Your task to perform on an android device: Open Google Maps and go to "Timeline" Image 0: 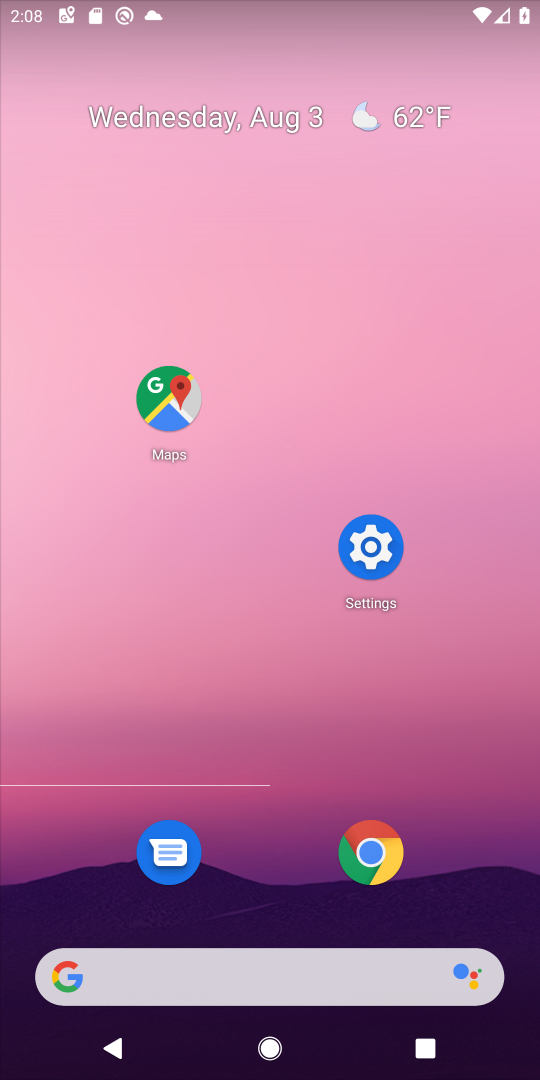
Step 0: press home button
Your task to perform on an android device: Open Google Maps and go to "Timeline" Image 1: 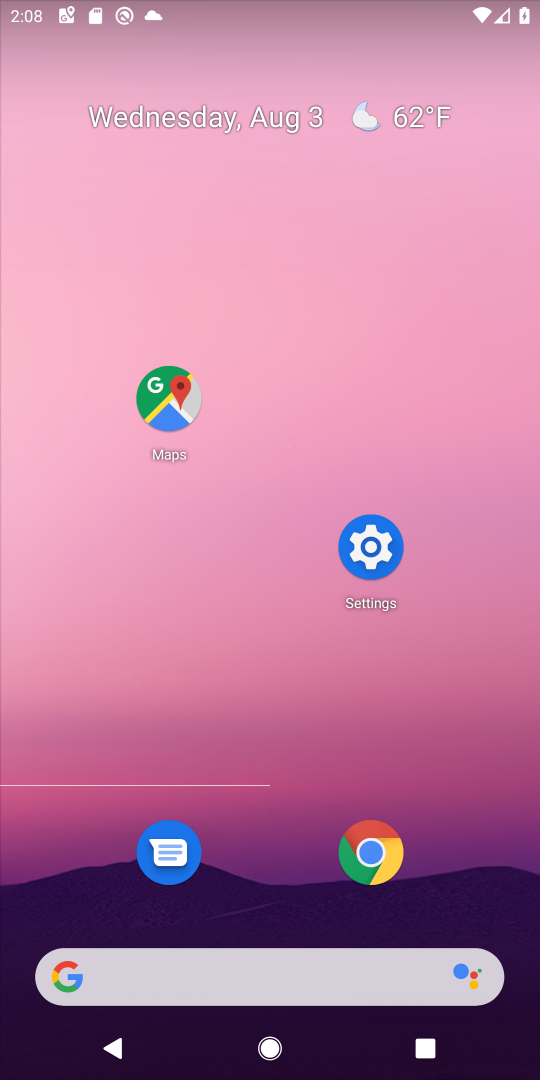
Step 1: click (164, 398)
Your task to perform on an android device: Open Google Maps and go to "Timeline" Image 2: 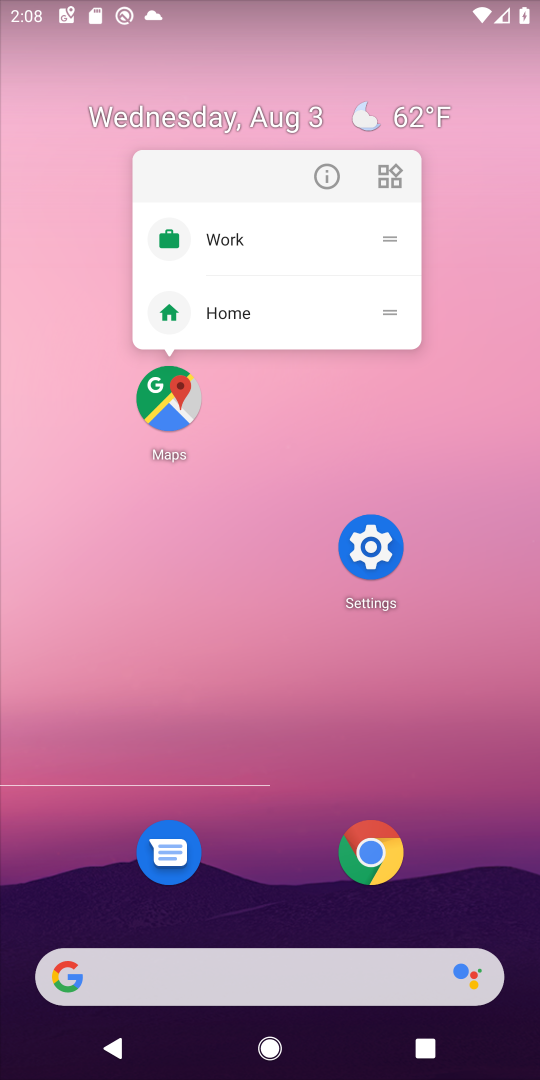
Step 2: click (164, 400)
Your task to perform on an android device: Open Google Maps and go to "Timeline" Image 3: 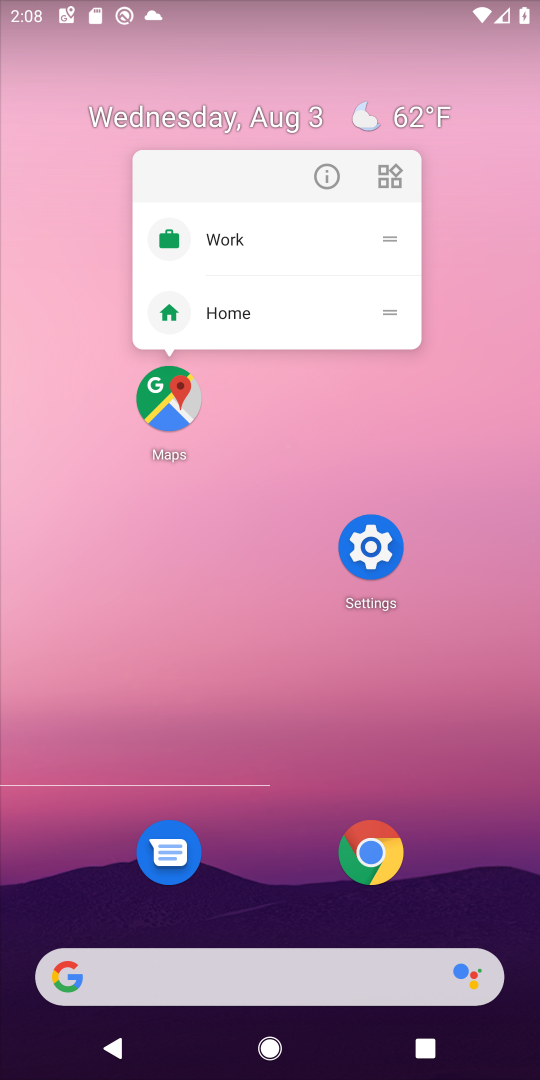
Step 3: click (164, 400)
Your task to perform on an android device: Open Google Maps and go to "Timeline" Image 4: 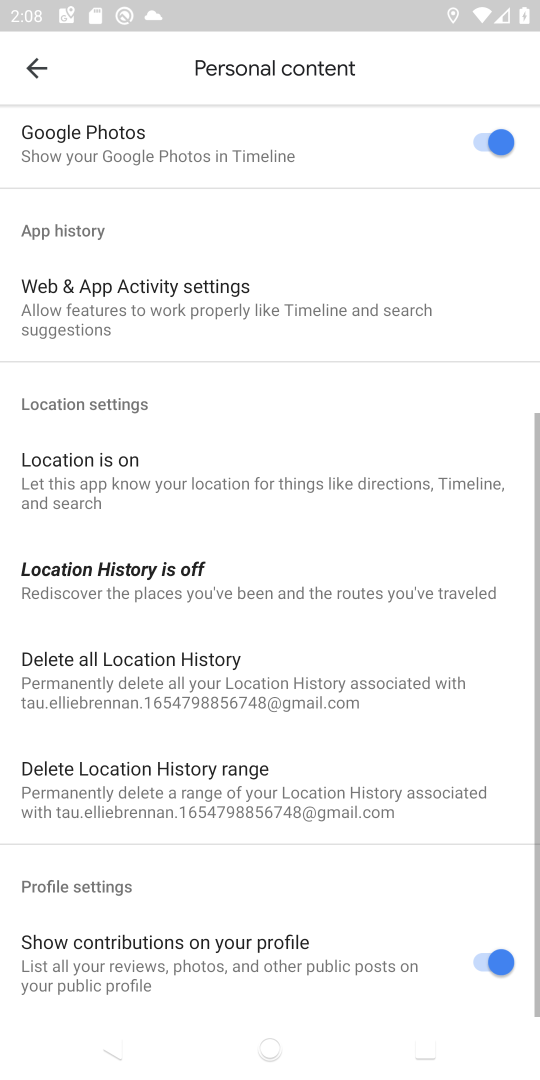
Step 4: click (36, 66)
Your task to perform on an android device: Open Google Maps and go to "Timeline" Image 5: 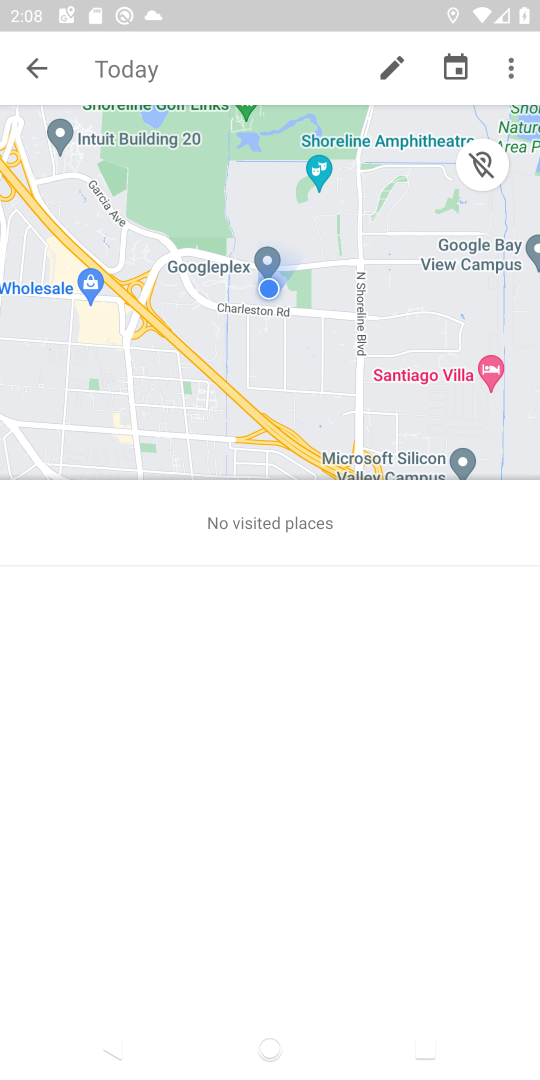
Step 5: task complete